Your task to perform on an android device: turn off improve location accuracy Image 0: 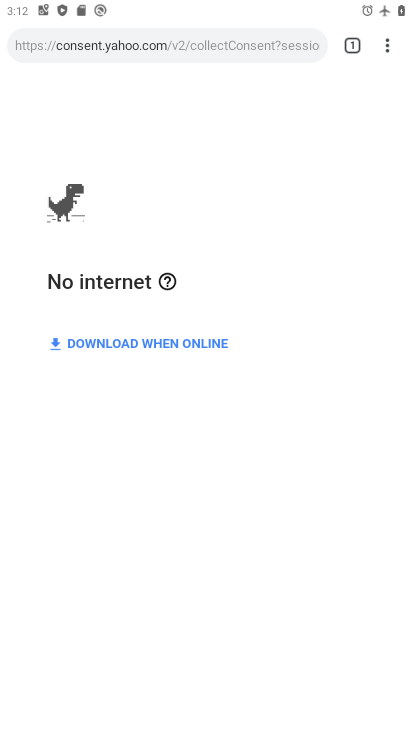
Step 0: task complete